Your task to perform on an android device: Search for sushi restaurants on Maps Image 0: 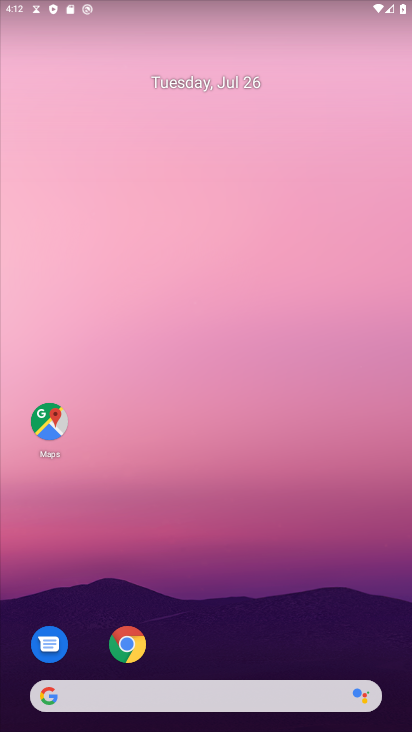
Step 0: click (49, 421)
Your task to perform on an android device: Search for sushi restaurants on Maps Image 1: 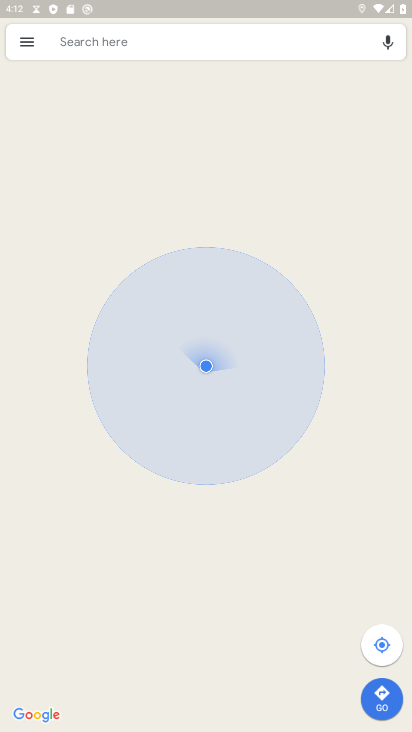
Step 1: click (192, 50)
Your task to perform on an android device: Search for sushi restaurants on Maps Image 2: 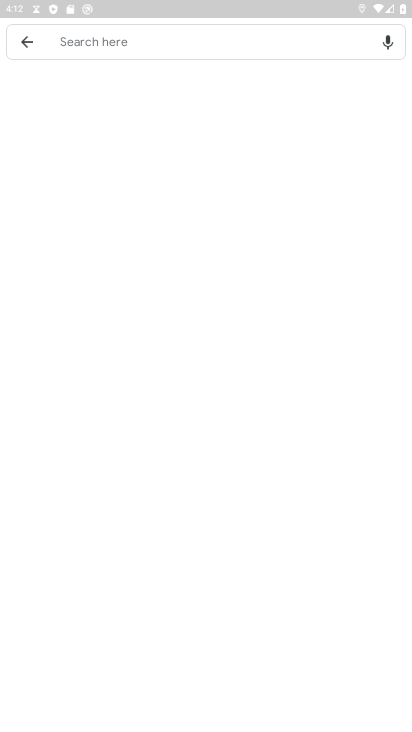
Step 2: click (200, 47)
Your task to perform on an android device: Search for sushi restaurants on Maps Image 3: 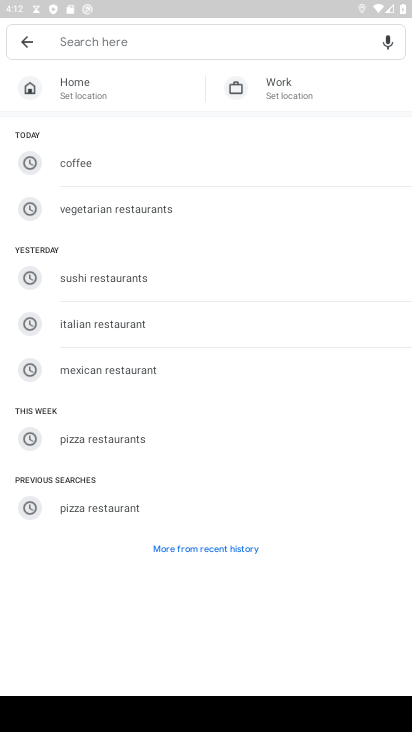
Step 3: click (275, 284)
Your task to perform on an android device: Search for sushi restaurants on Maps Image 4: 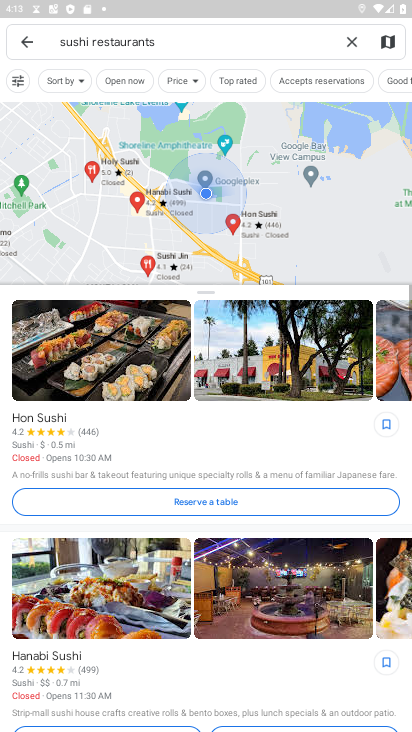
Step 4: task complete